Your task to perform on an android device: read, delete, or share a saved page in the chrome app Image 0: 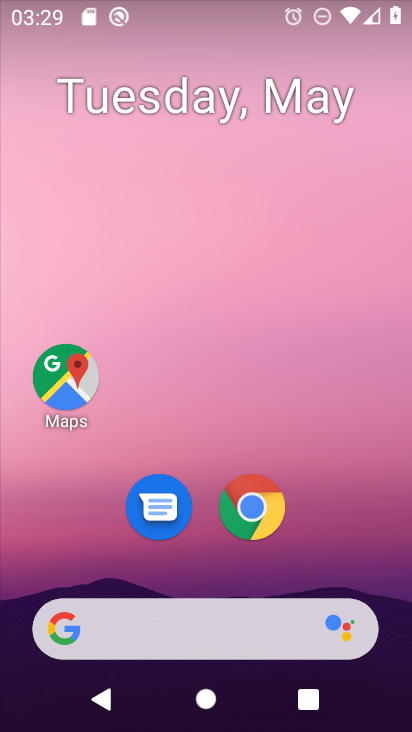
Step 0: click (242, 540)
Your task to perform on an android device: read, delete, or share a saved page in the chrome app Image 1: 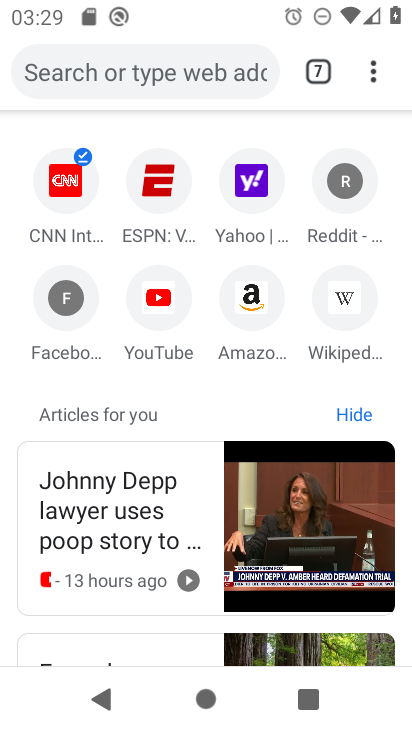
Step 1: drag from (365, 77) to (158, 399)
Your task to perform on an android device: read, delete, or share a saved page in the chrome app Image 2: 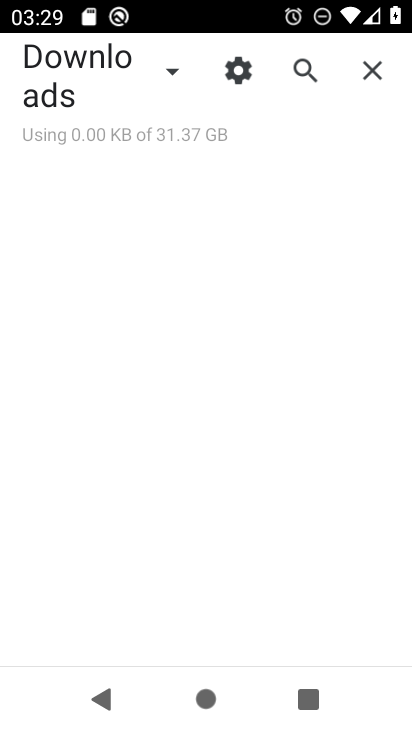
Step 2: click (162, 75)
Your task to perform on an android device: read, delete, or share a saved page in the chrome app Image 3: 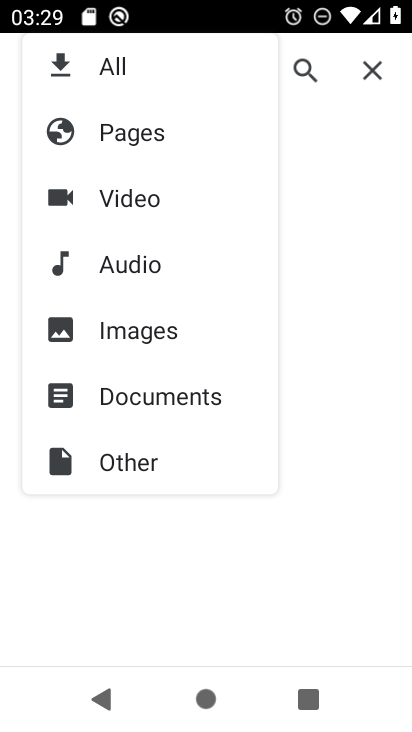
Step 3: click (130, 143)
Your task to perform on an android device: read, delete, or share a saved page in the chrome app Image 4: 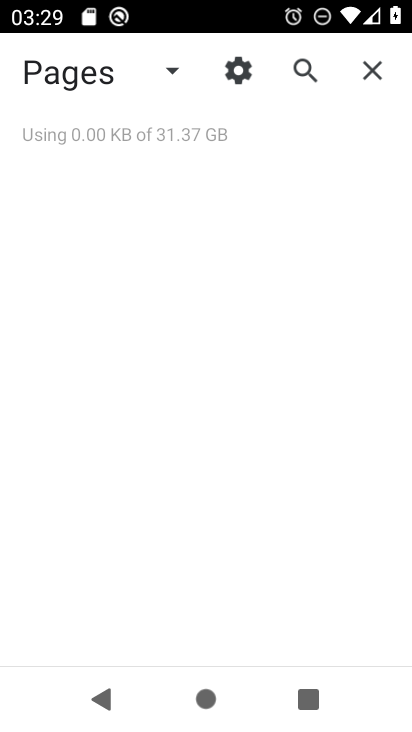
Step 4: task complete